Your task to perform on an android device: Clear the shopping cart on costco. Search for jbl flip 4 on costco, select the first entry, and add it to the cart. Image 0: 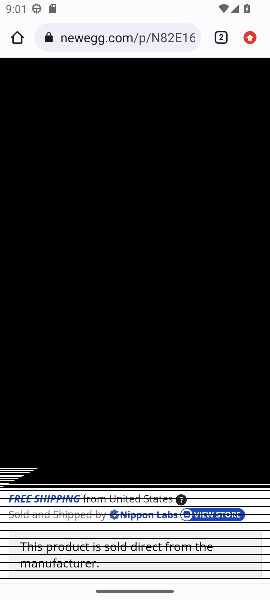
Step 0: press home button
Your task to perform on an android device: Clear the shopping cart on costco. Search for jbl flip 4 on costco, select the first entry, and add it to the cart. Image 1: 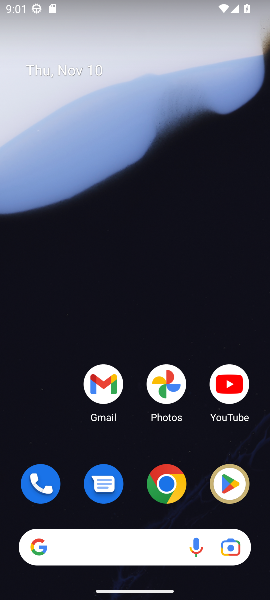
Step 1: click (173, 486)
Your task to perform on an android device: Clear the shopping cart on costco. Search for jbl flip 4 on costco, select the first entry, and add it to the cart. Image 2: 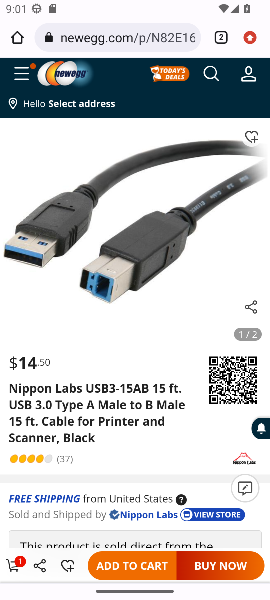
Step 2: click (129, 40)
Your task to perform on an android device: Clear the shopping cart on costco. Search for jbl flip 4 on costco, select the first entry, and add it to the cart. Image 3: 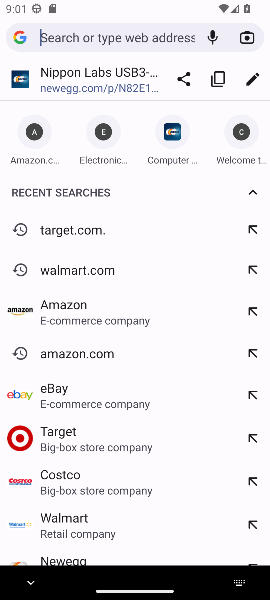
Step 3: type "costco.com"
Your task to perform on an android device: Clear the shopping cart on costco. Search for jbl flip 4 on costco, select the first entry, and add it to the cart. Image 4: 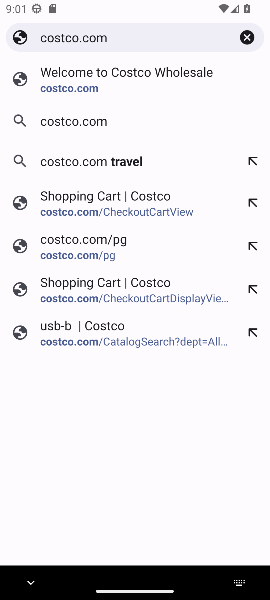
Step 4: click (59, 95)
Your task to perform on an android device: Clear the shopping cart on costco. Search for jbl flip 4 on costco, select the first entry, and add it to the cart. Image 5: 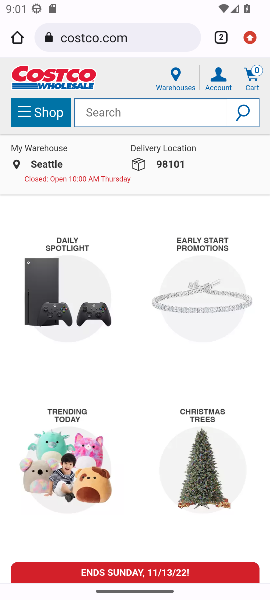
Step 5: click (253, 75)
Your task to perform on an android device: Clear the shopping cart on costco. Search for jbl flip 4 on costco, select the first entry, and add it to the cart. Image 6: 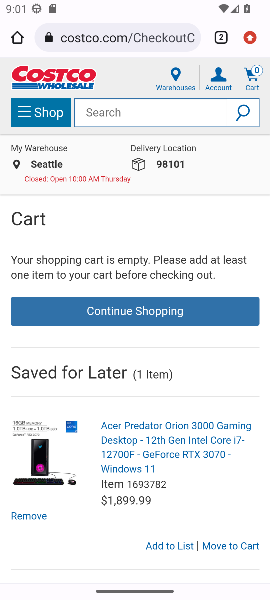
Step 6: drag from (172, 403) to (174, 369)
Your task to perform on an android device: Clear the shopping cart on costco. Search for jbl flip 4 on costco, select the first entry, and add it to the cart. Image 7: 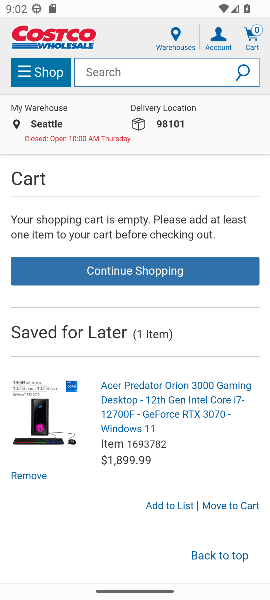
Step 7: drag from (195, 379) to (190, 466)
Your task to perform on an android device: Clear the shopping cart on costco. Search for jbl flip 4 on costco, select the first entry, and add it to the cart. Image 8: 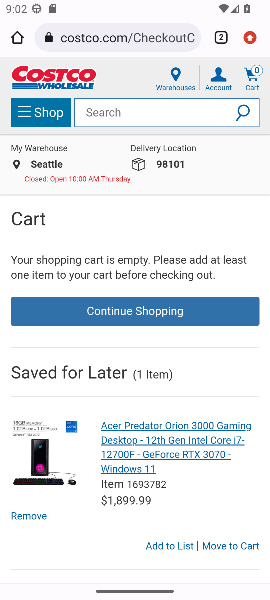
Step 8: click (220, 112)
Your task to perform on an android device: Clear the shopping cart on costco. Search for jbl flip 4 on costco, select the first entry, and add it to the cart. Image 9: 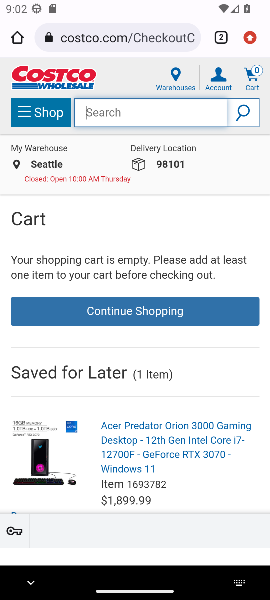
Step 9: type " jbl flip 4"
Your task to perform on an android device: Clear the shopping cart on costco. Search for jbl flip 4 on costco, select the first entry, and add it to the cart. Image 10: 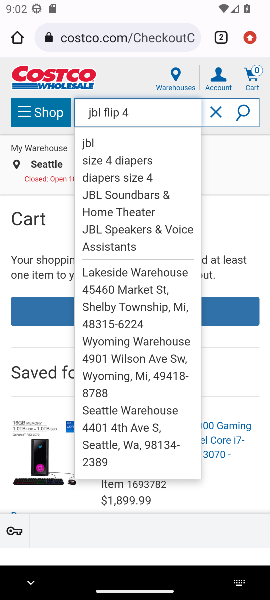
Step 10: click (246, 108)
Your task to perform on an android device: Clear the shopping cart on costco. Search for jbl flip 4 on costco, select the first entry, and add it to the cart. Image 11: 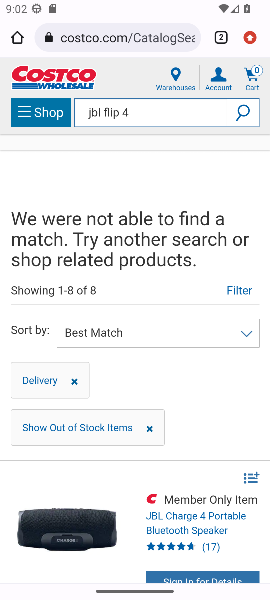
Step 11: task complete